Your task to perform on an android device: Open location settings Image 0: 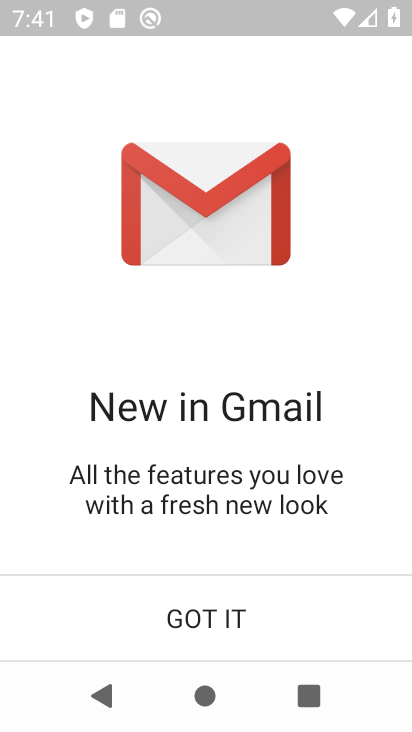
Step 0: press home button
Your task to perform on an android device: Open location settings Image 1: 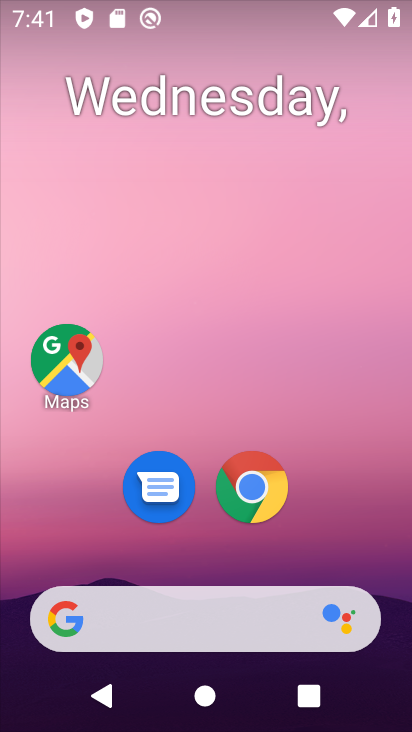
Step 1: drag from (381, 542) to (369, 162)
Your task to perform on an android device: Open location settings Image 2: 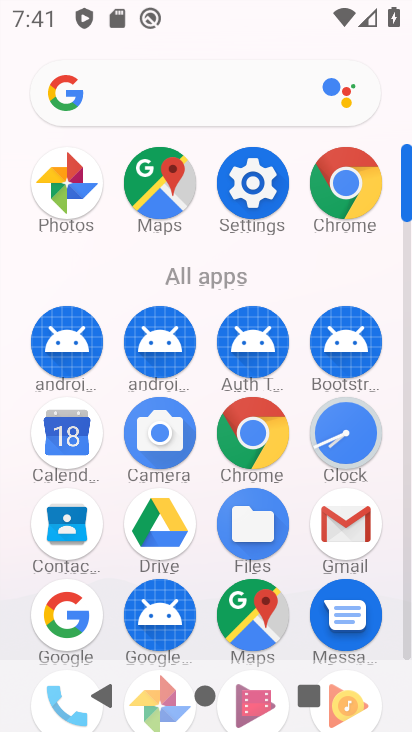
Step 2: click (255, 207)
Your task to perform on an android device: Open location settings Image 3: 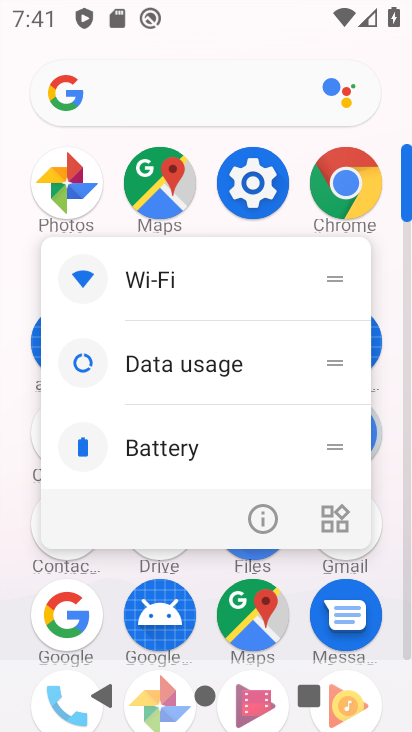
Step 3: click (255, 207)
Your task to perform on an android device: Open location settings Image 4: 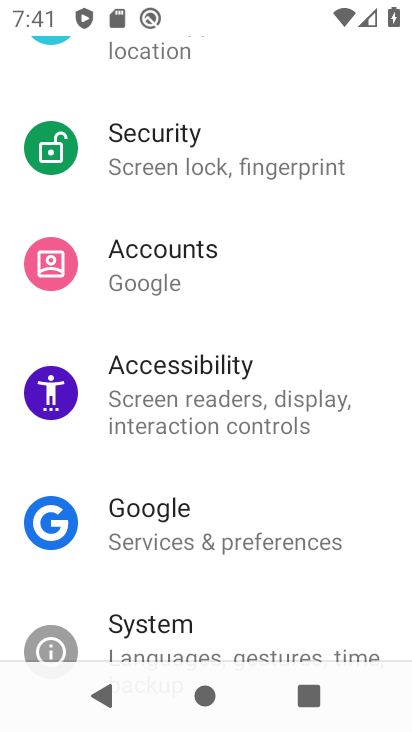
Step 4: drag from (379, 492) to (391, 327)
Your task to perform on an android device: Open location settings Image 5: 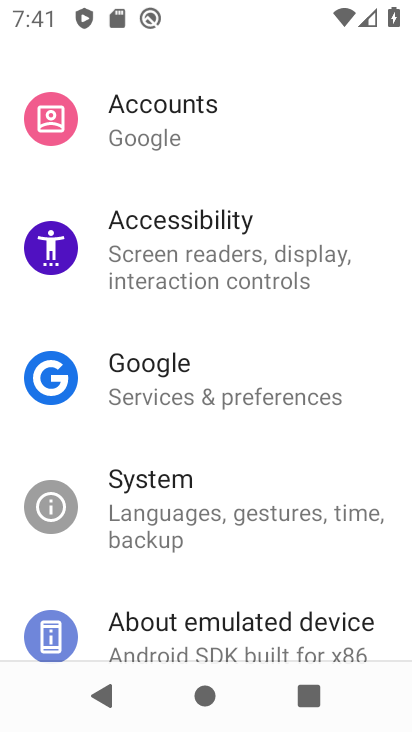
Step 5: drag from (346, 542) to (383, 295)
Your task to perform on an android device: Open location settings Image 6: 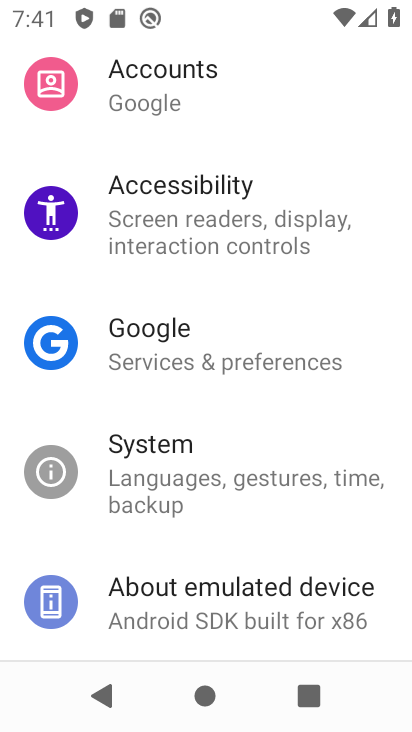
Step 6: drag from (361, 533) to (374, 342)
Your task to perform on an android device: Open location settings Image 7: 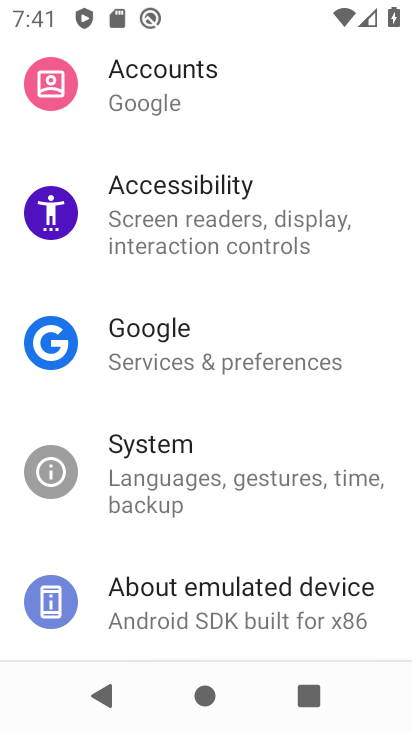
Step 7: drag from (373, 252) to (366, 415)
Your task to perform on an android device: Open location settings Image 8: 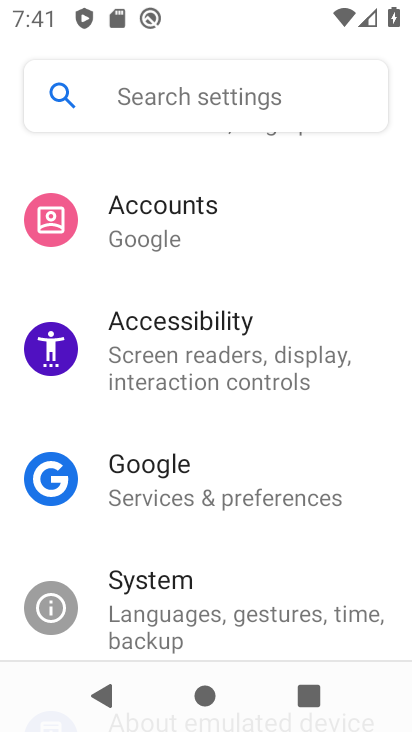
Step 8: drag from (365, 250) to (364, 360)
Your task to perform on an android device: Open location settings Image 9: 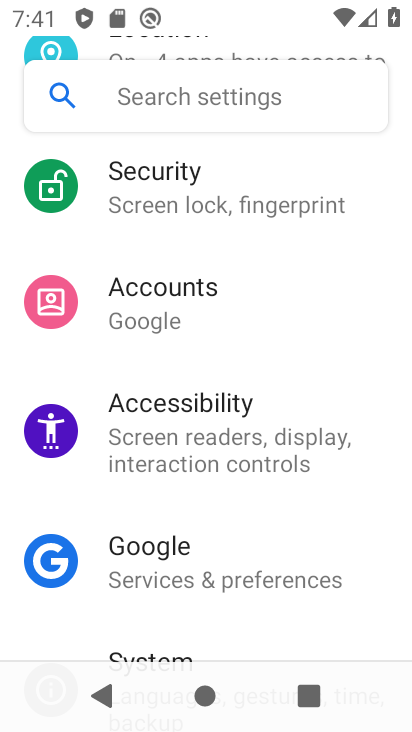
Step 9: drag from (362, 228) to (372, 347)
Your task to perform on an android device: Open location settings Image 10: 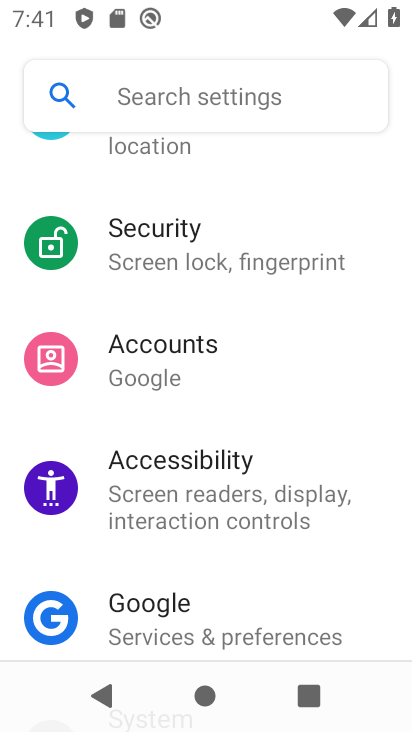
Step 10: drag from (370, 214) to (374, 362)
Your task to perform on an android device: Open location settings Image 11: 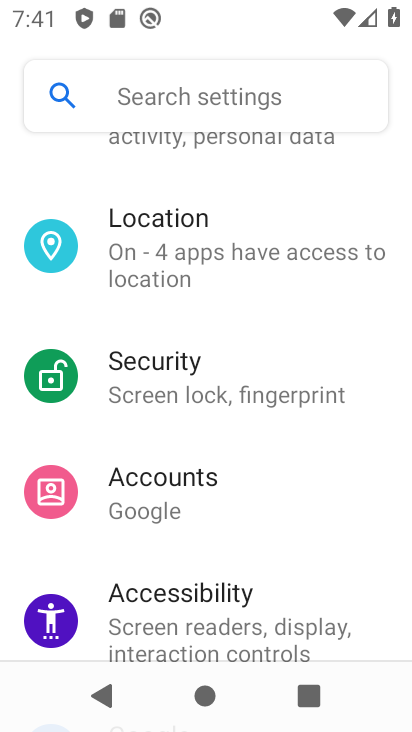
Step 11: click (349, 247)
Your task to perform on an android device: Open location settings Image 12: 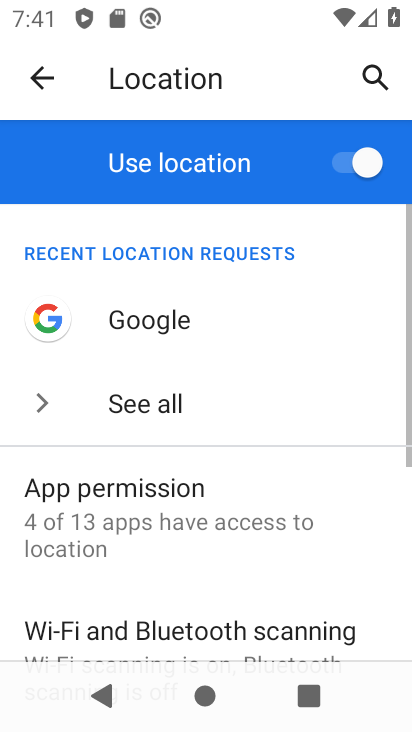
Step 12: task complete